Your task to perform on an android device: turn off wifi Image 0: 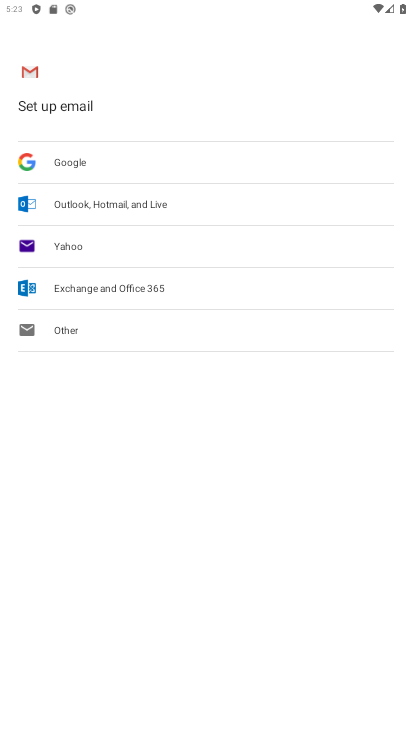
Step 0: press home button
Your task to perform on an android device: turn off wifi Image 1: 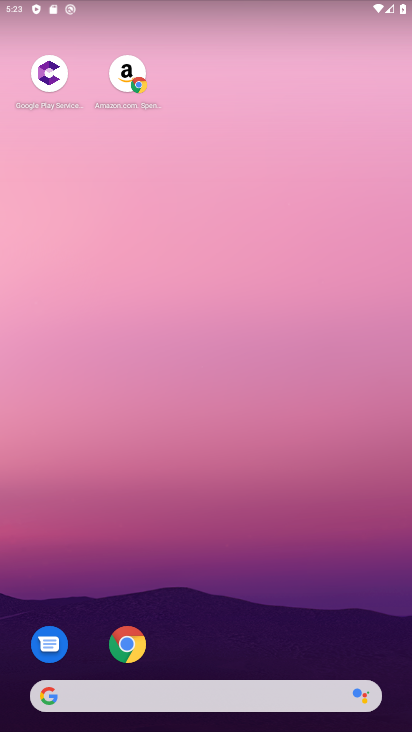
Step 1: drag from (232, 709) to (231, 37)
Your task to perform on an android device: turn off wifi Image 2: 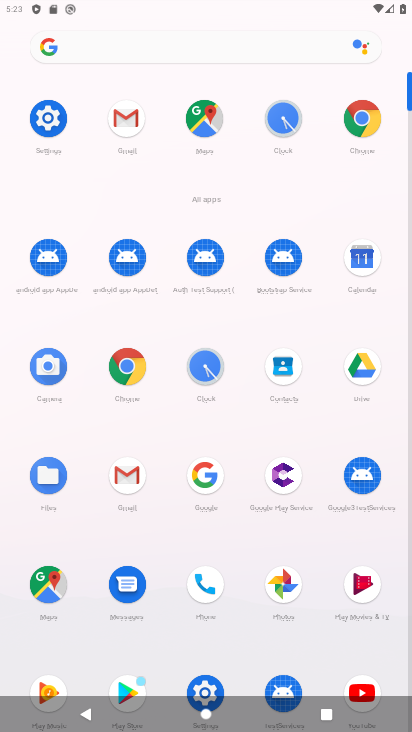
Step 2: click (47, 114)
Your task to perform on an android device: turn off wifi Image 3: 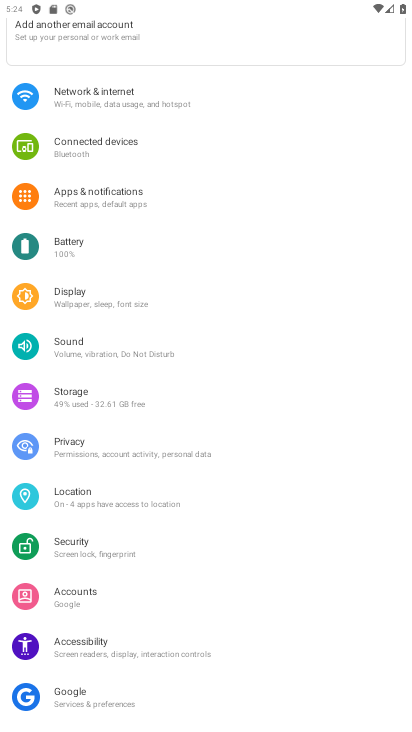
Step 3: click (118, 81)
Your task to perform on an android device: turn off wifi Image 4: 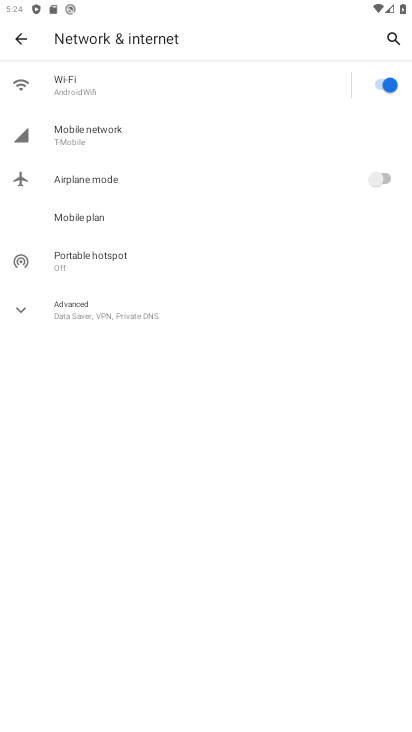
Step 4: click (381, 84)
Your task to perform on an android device: turn off wifi Image 5: 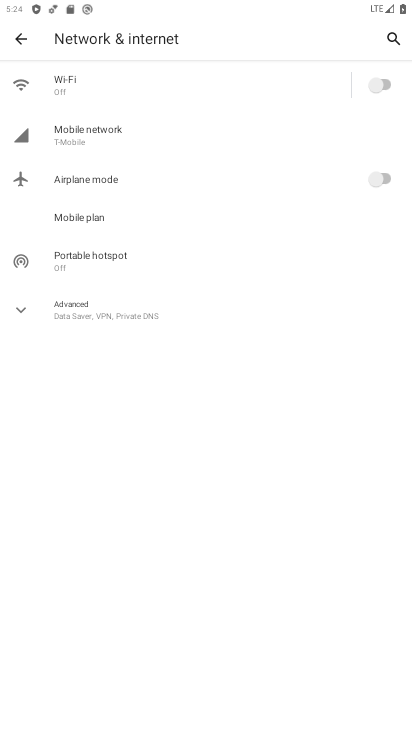
Step 5: task complete